Your task to perform on an android device: set the timer Image 0: 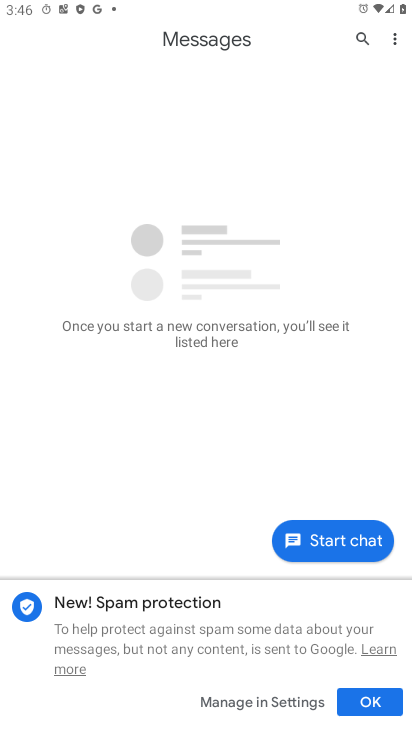
Step 0: press home button
Your task to perform on an android device: set the timer Image 1: 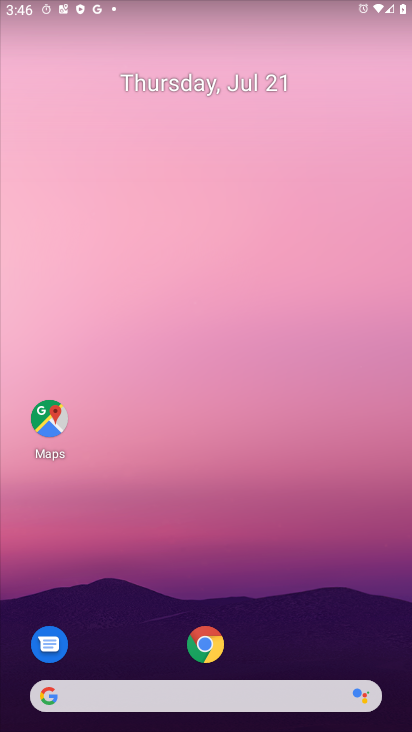
Step 1: drag from (323, 620) to (305, 43)
Your task to perform on an android device: set the timer Image 2: 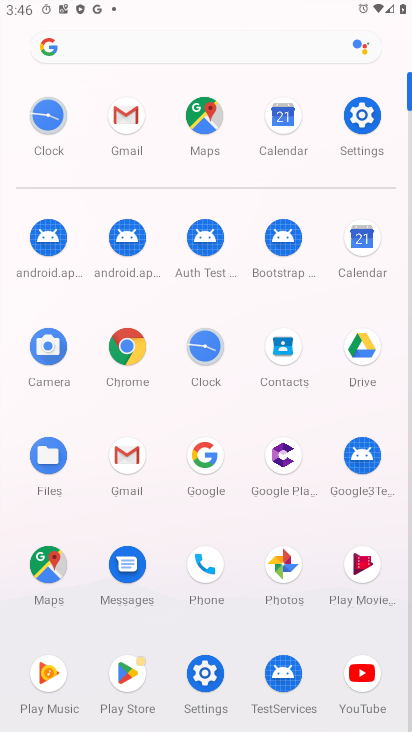
Step 2: click (200, 345)
Your task to perform on an android device: set the timer Image 3: 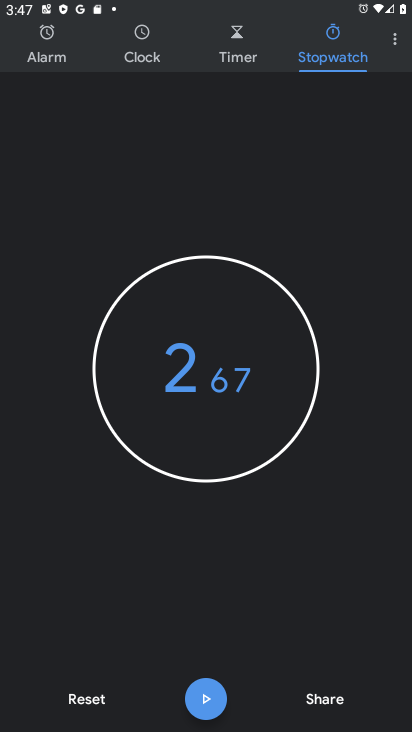
Step 3: click (237, 30)
Your task to perform on an android device: set the timer Image 4: 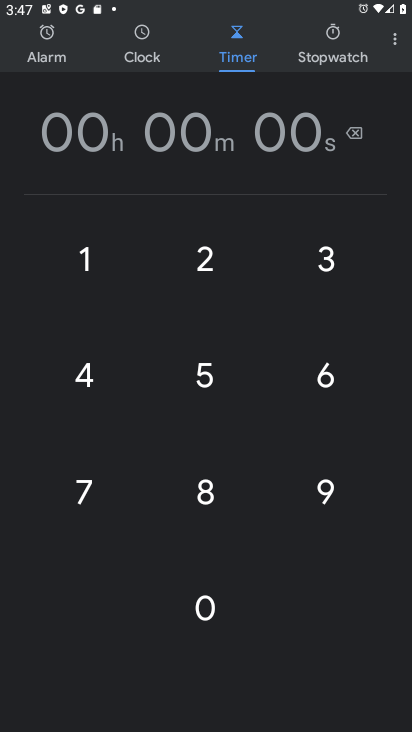
Step 4: click (192, 381)
Your task to perform on an android device: set the timer Image 5: 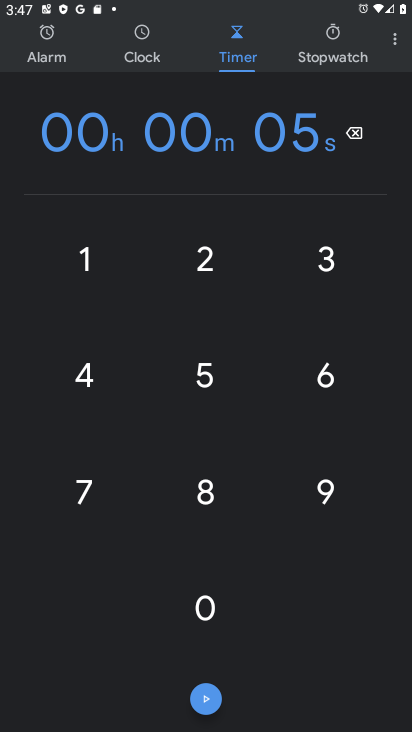
Step 5: click (199, 374)
Your task to perform on an android device: set the timer Image 6: 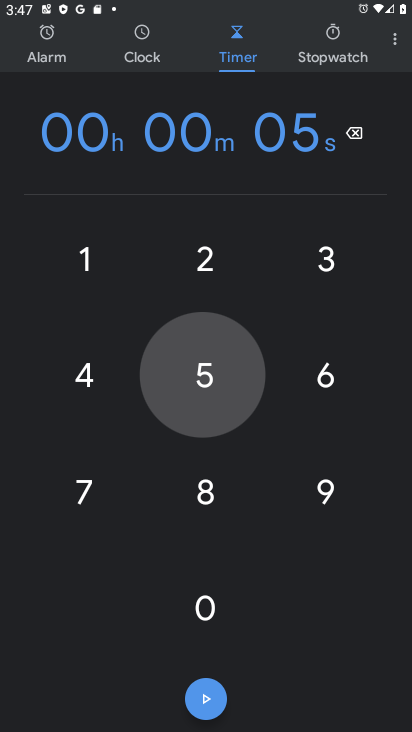
Step 6: click (199, 374)
Your task to perform on an android device: set the timer Image 7: 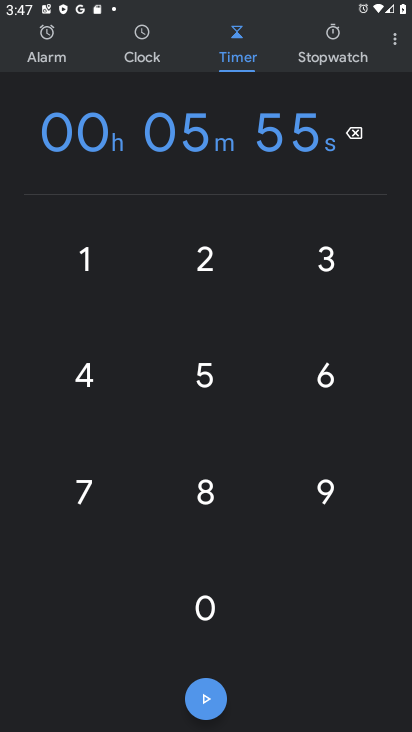
Step 7: click (336, 373)
Your task to perform on an android device: set the timer Image 8: 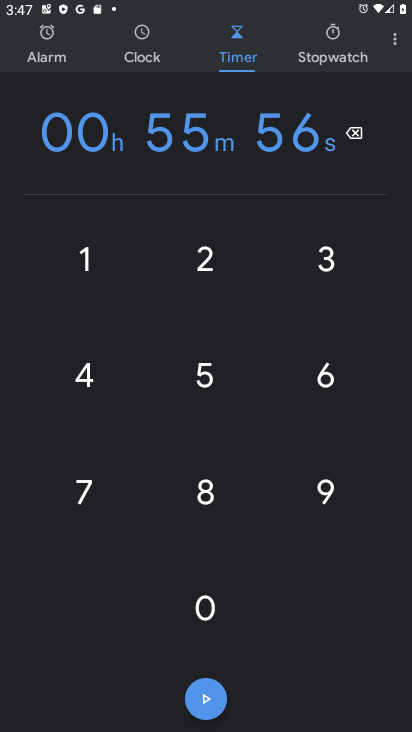
Step 8: click (336, 373)
Your task to perform on an android device: set the timer Image 9: 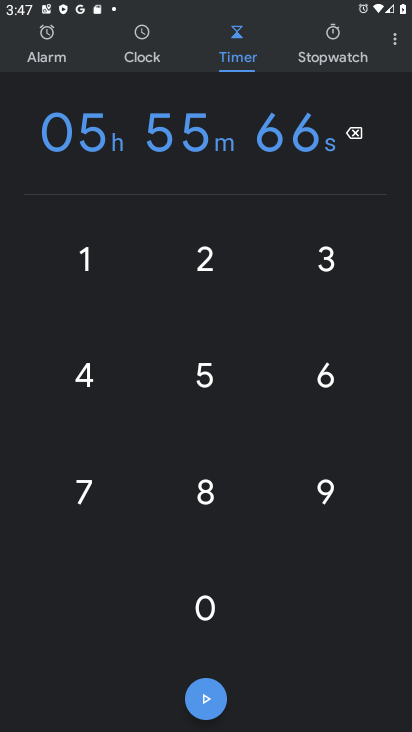
Step 9: click (217, 697)
Your task to perform on an android device: set the timer Image 10: 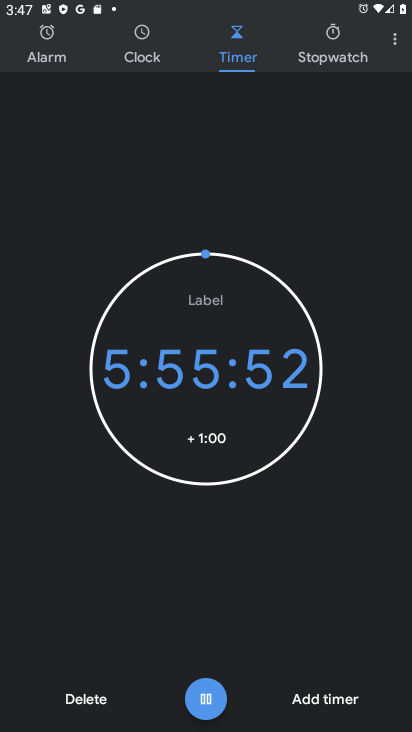
Step 10: task complete